Your task to perform on an android device: Open sound settings Image 0: 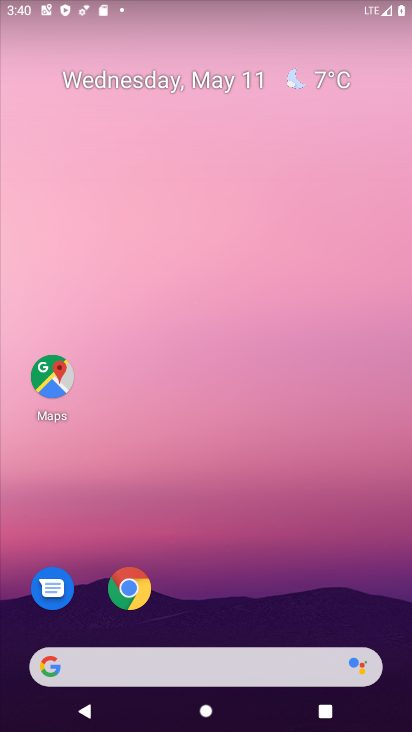
Step 0: drag from (220, 716) to (216, 135)
Your task to perform on an android device: Open sound settings Image 1: 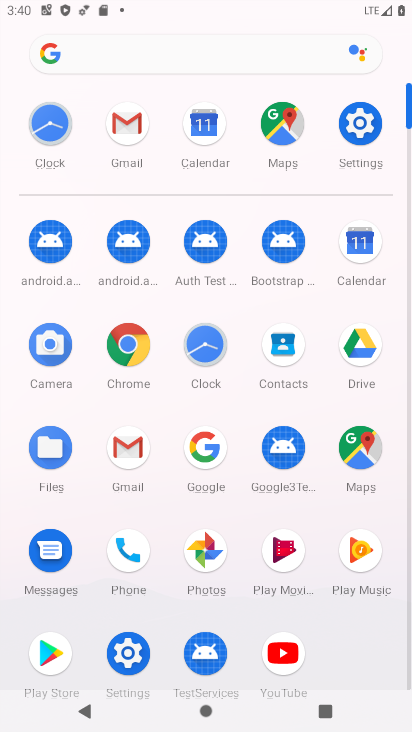
Step 1: click (359, 126)
Your task to perform on an android device: Open sound settings Image 2: 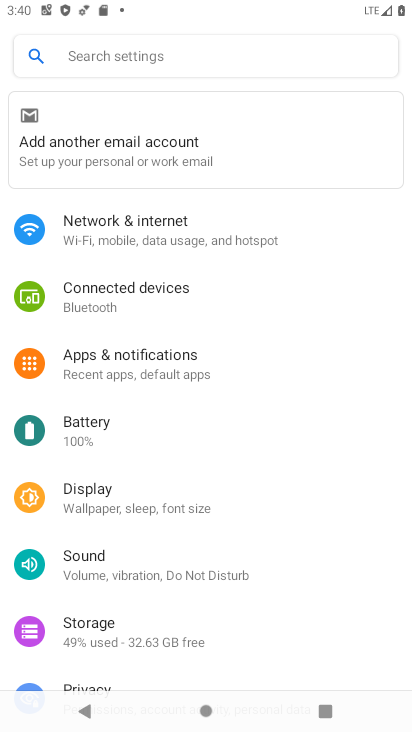
Step 2: click (113, 567)
Your task to perform on an android device: Open sound settings Image 3: 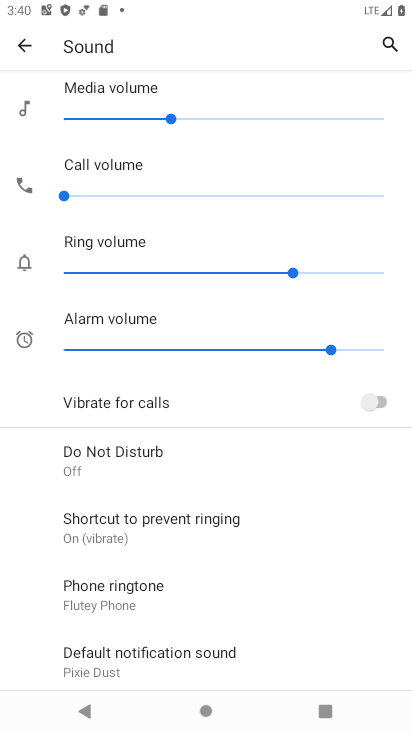
Step 3: task complete